Your task to perform on an android device: Open location settings Image 0: 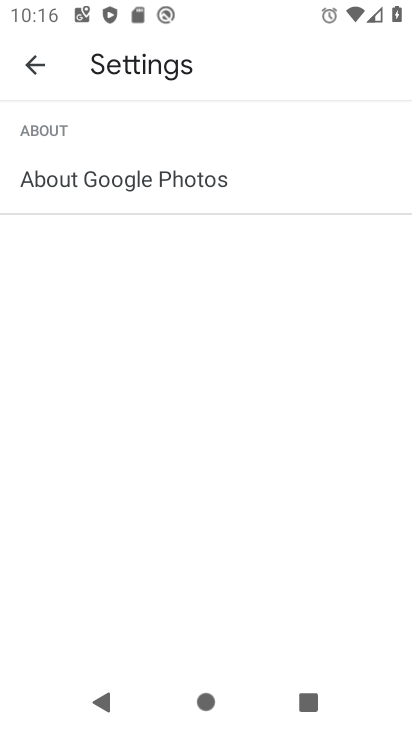
Step 0: press home button
Your task to perform on an android device: Open location settings Image 1: 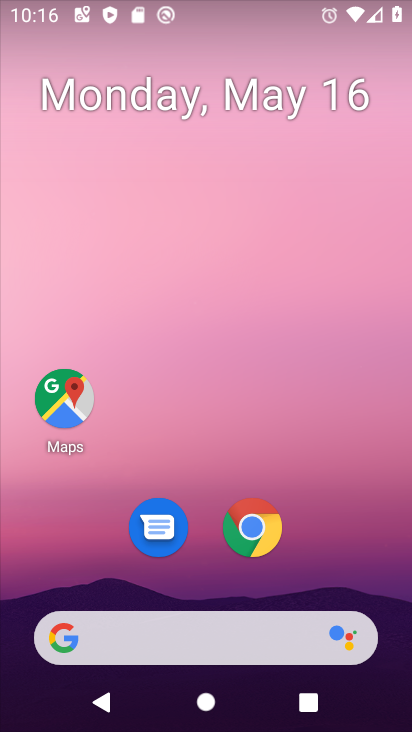
Step 1: drag from (367, 545) to (406, 563)
Your task to perform on an android device: Open location settings Image 2: 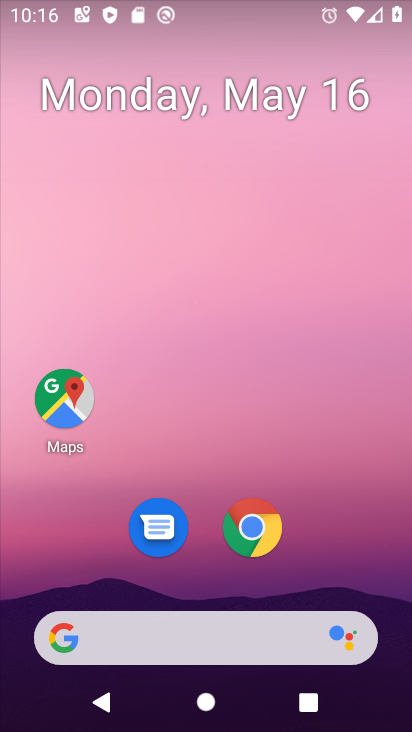
Step 2: drag from (339, 577) to (321, 22)
Your task to perform on an android device: Open location settings Image 3: 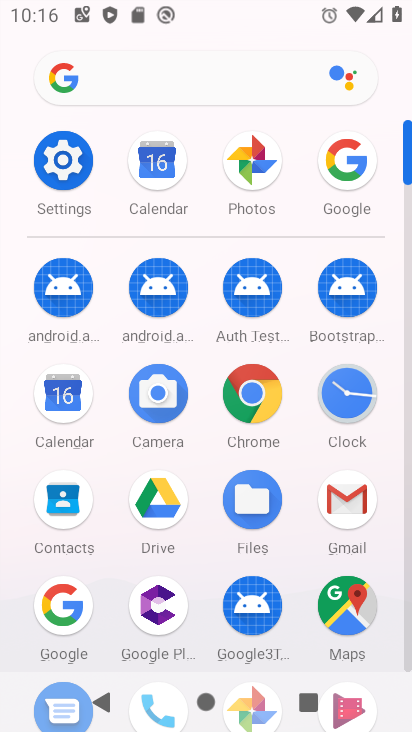
Step 3: click (50, 162)
Your task to perform on an android device: Open location settings Image 4: 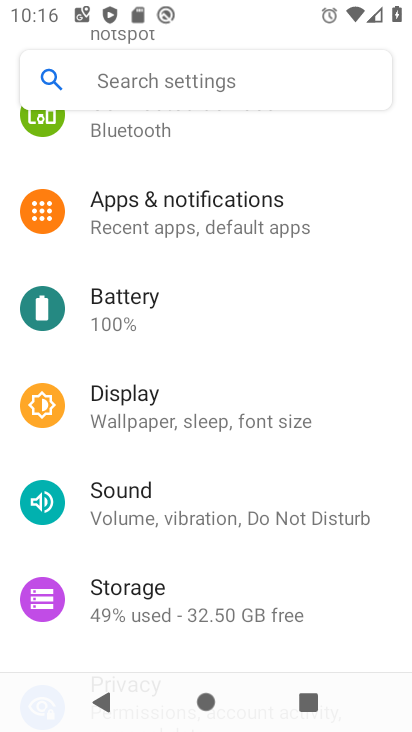
Step 4: drag from (283, 482) to (287, 248)
Your task to perform on an android device: Open location settings Image 5: 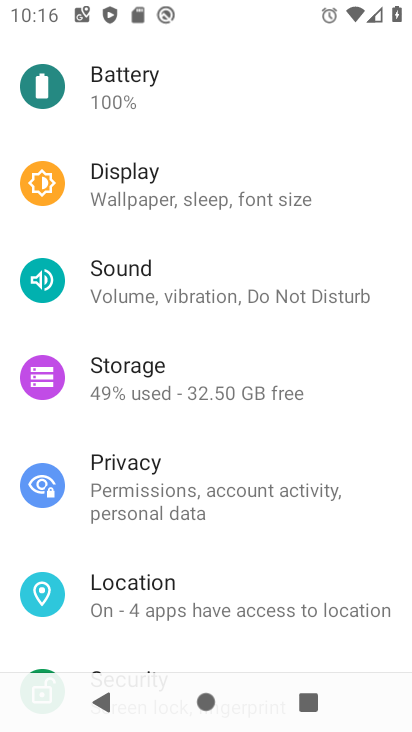
Step 5: click (139, 581)
Your task to perform on an android device: Open location settings Image 6: 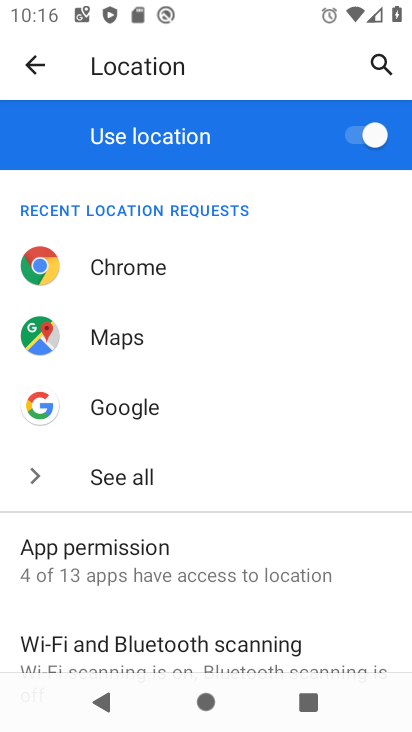
Step 6: task complete